Your task to perform on an android device: turn off translation in the chrome app Image 0: 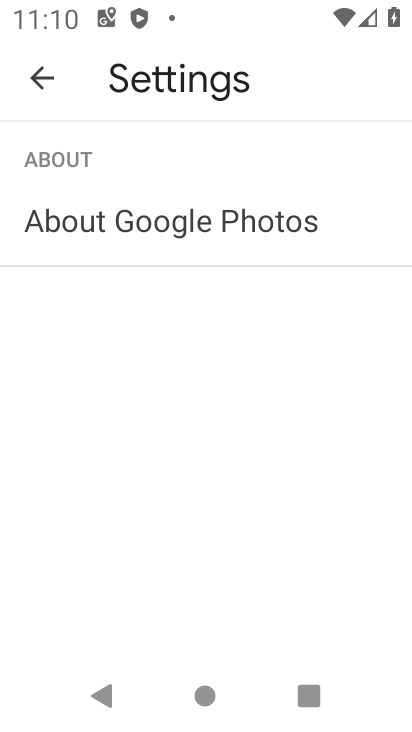
Step 0: press home button
Your task to perform on an android device: turn off translation in the chrome app Image 1: 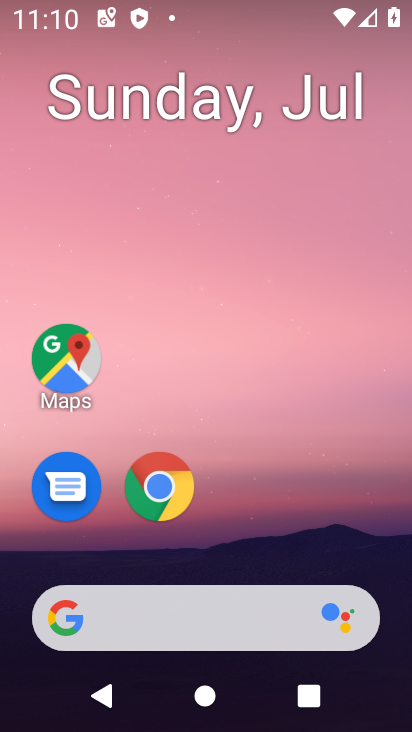
Step 1: drag from (349, 531) to (353, 112)
Your task to perform on an android device: turn off translation in the chrome app Image 2: 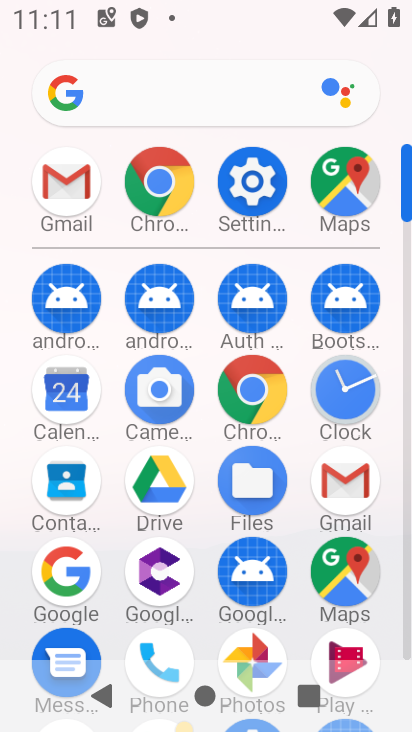
Step 2: click (247, 388)
Your task to perform on an android device: turn off translation in the chrome app Image 3: 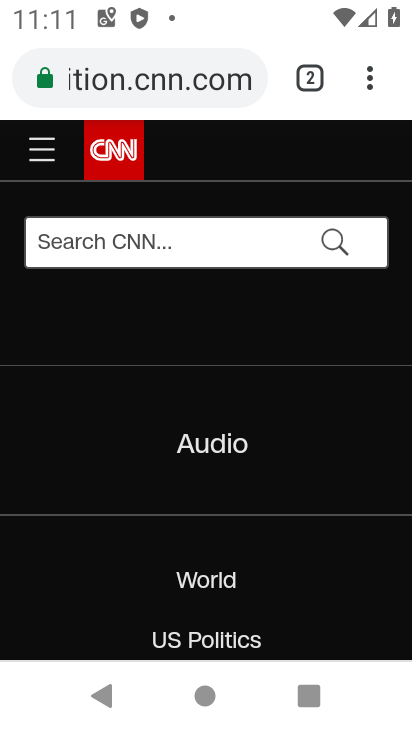
Step 3: click (366, 87)
Your task to perform on an android device: turn off translation in the chrome app Image 4: 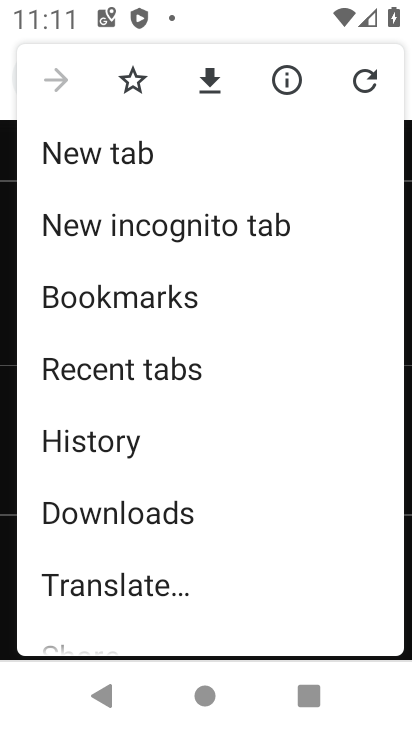
Step 4: drag from (307, 491) to (306, 383)
Your task to perform on an android device: turn off translation in the chrome app Image 5: 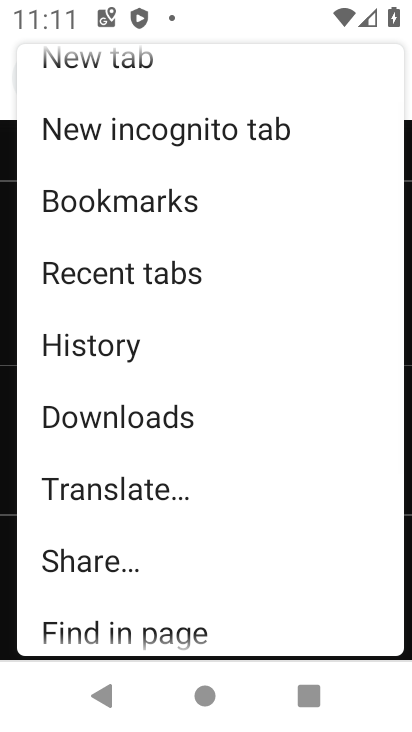
Step 5: drag from (280, 494) to (284, 368)
Your task to perform on an android device: turn off translation in the chrome app Image 6: 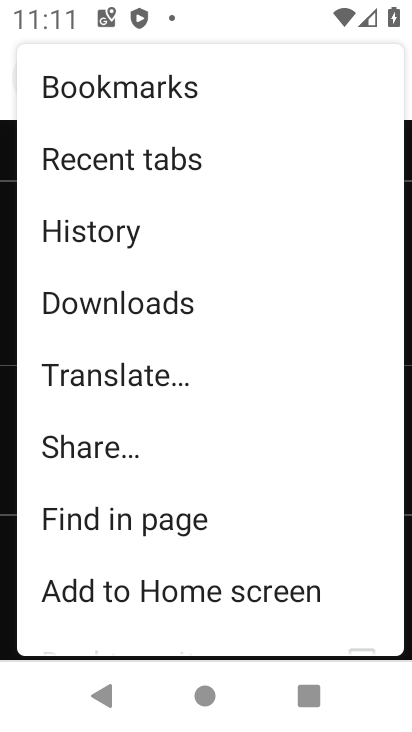
Step 6: drag from (286, 459) to (268, 361)
Your task to perform on an android device: turn off translation in the chrome app Image 7: 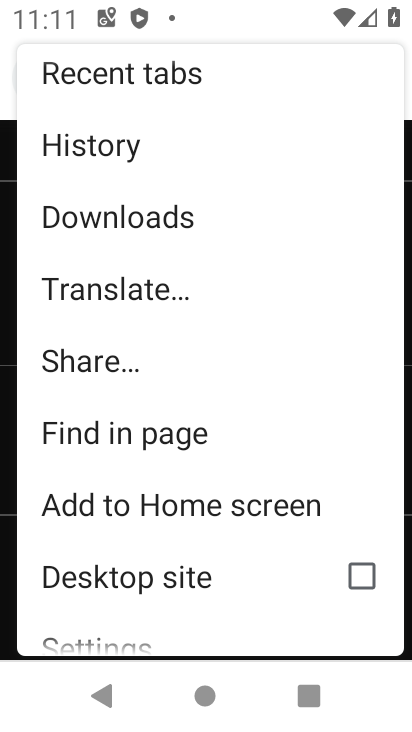
Step 7: drag from (242, 546) to (243, 392)
Your task to perform on an android device: turn off translation in the chrome app Image 8: 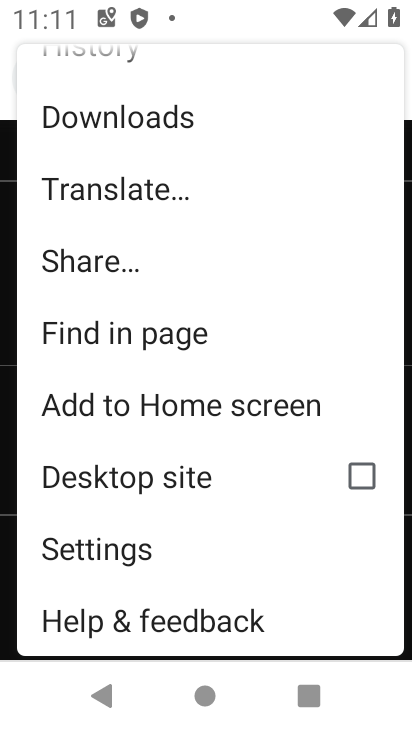
Step 8: click (193, 555)
Your task to perform on an android device: turn off translation in the chrome app Image 9: 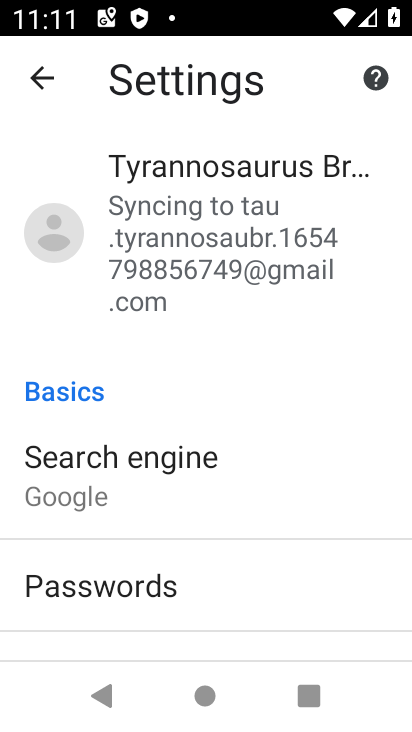
Step 9: drag from (287, 568) to (294, 456)
Your task to perform on an android device: turn off translation in the chrome app Image 10: 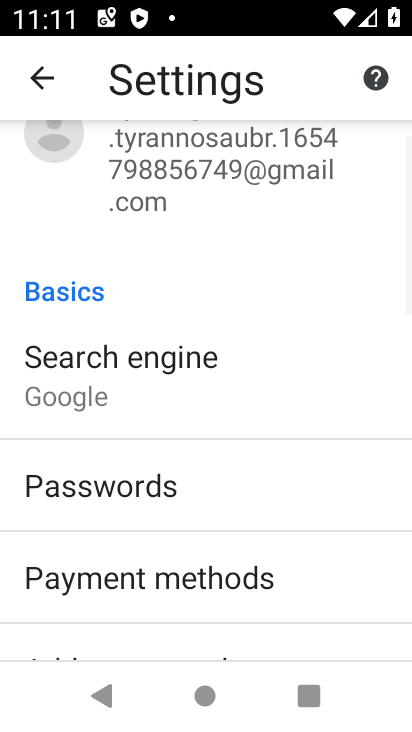
Step 10: drag from (321, 582) to (323, 433)
Your task to perform on an android device: turn off translation in the chrome app Image 11: 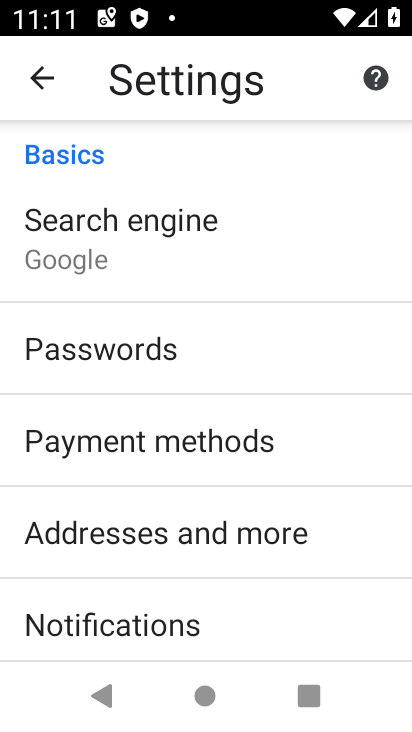
Step 11: drag from (316, 579) to (317, 454)
Your task to perform on an android device: turn off translation in the chrome app Image 12: 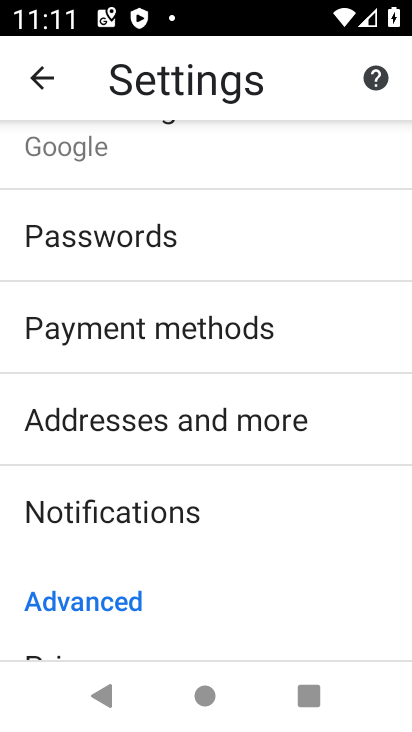
Step 12: drag from (289, 588) to (288, 462)
Your task to perform on an android device: turn off translation in the chrome app Image 13: 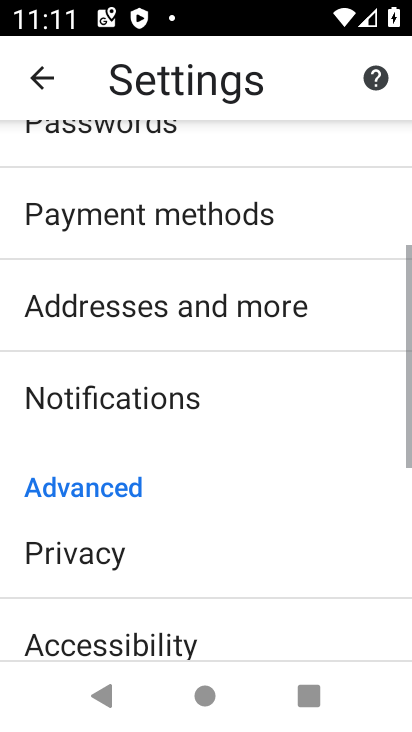
Step 13: drag from (267, 591) to (266, 462)
Your task to perform on an android device: turn off translation in the chrome app Image 14: 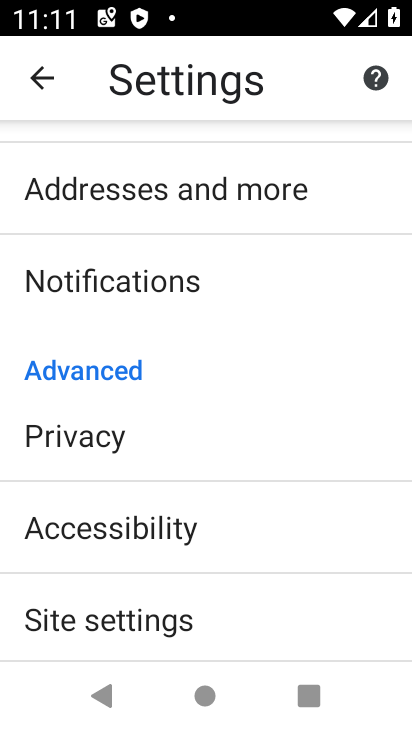
Step 14: drag from (287, 590) to (281, 490)
Your task to perform on an android device: turn off translation in the chrome app Image 15: 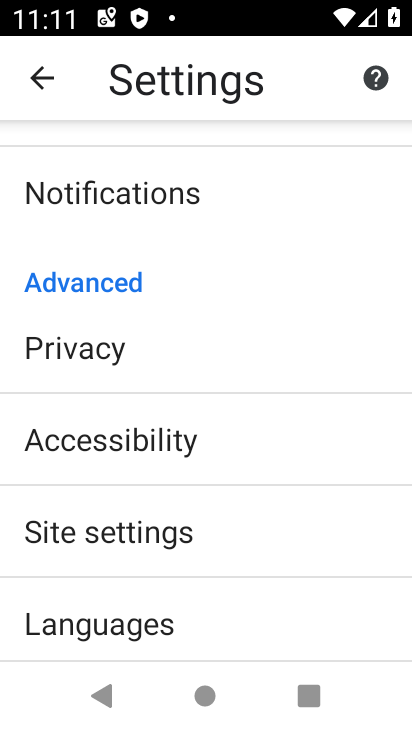
Step 15: drag from (265, 569) to (264, 439)
Your task to perform on an android device: turn off translation in the chrome app Image 16: 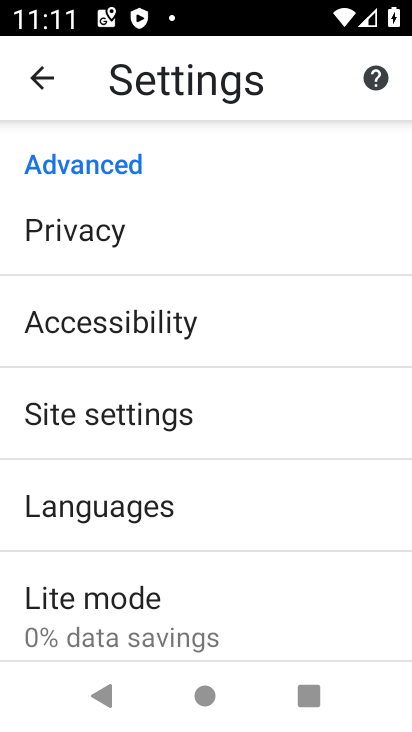
Step 16: drag from (265, 550) to (251, 444)
Your task to perform on an android device: turn off translation in the chrome app Image 17: 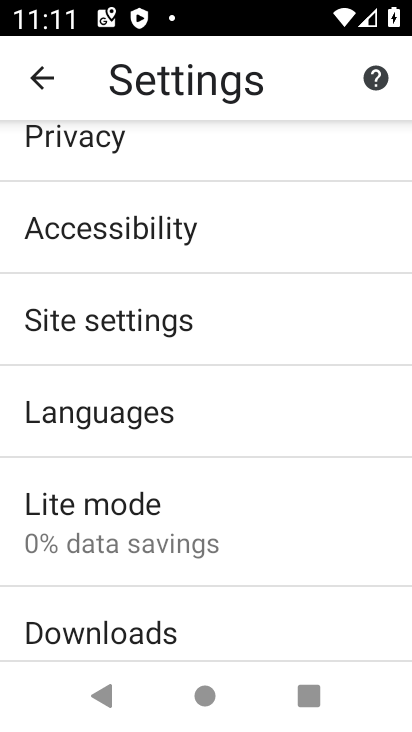
Step 17: click (254, 436)
Your task to perform on an android device: turn off translation in the chrome app Image 18: 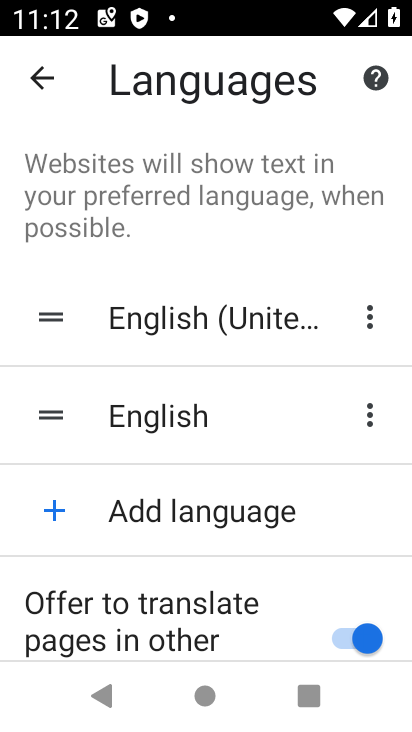
Step 18: click (345, 633)
Your task to perform on an android device: turn off translation in the chrome app Image 19: 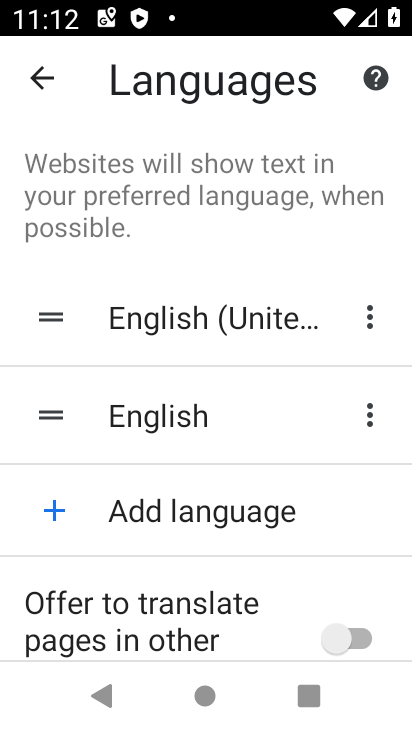
Step 19: task complete